Your task to perform on an android device: Open Chrome and go to the settings page Image 0: 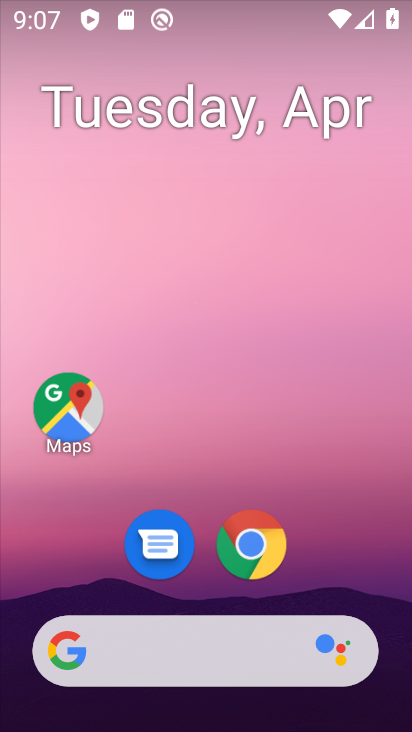
Step 0: drag from (377, 501) to (345, 68)
Your task to perform on an android device: Open Chrome and go to the settings page Image 1: 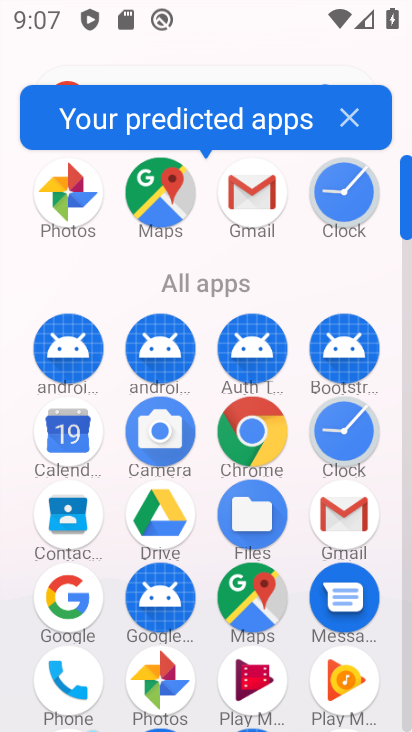
Step 1: click (266, 435)
Your task to perform on an android device: Open Chrome and go to the settings page Image 2: 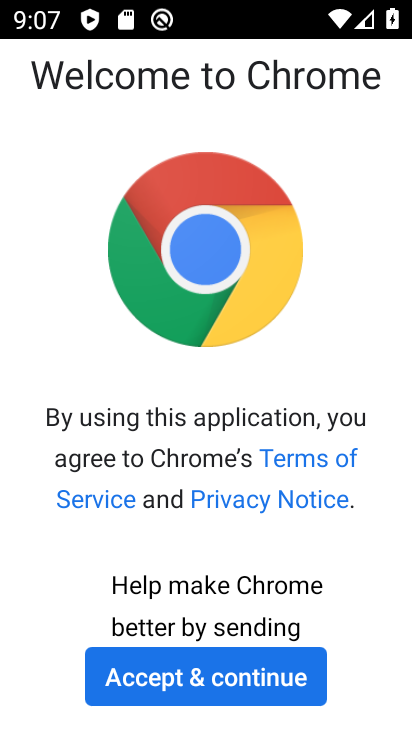
Step 2: click (248, 686)
Your task to perform on an android device: Open Chrome and go to the settings page Image 3: 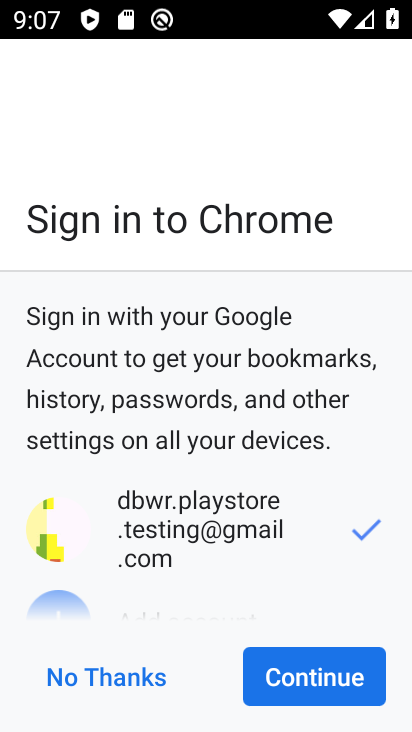
Step 3: click (347, 677)
Your task to perform on an android device: Open Chrome and go to the settings page Image 4: 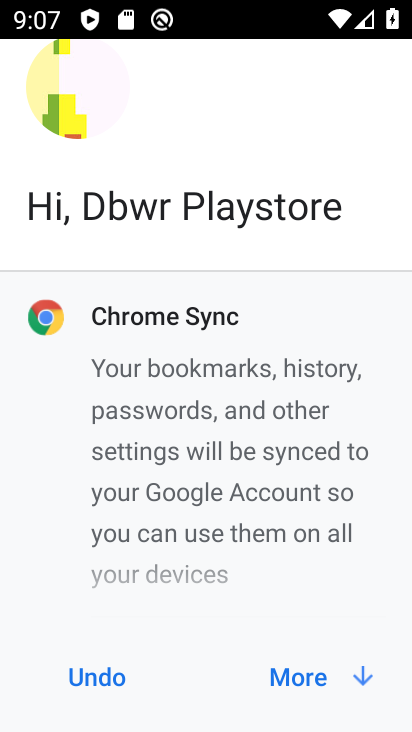
Step 4: click (326, 675)
Your task to perform on an android device: Open Chrome and go to the settings page Image 5: 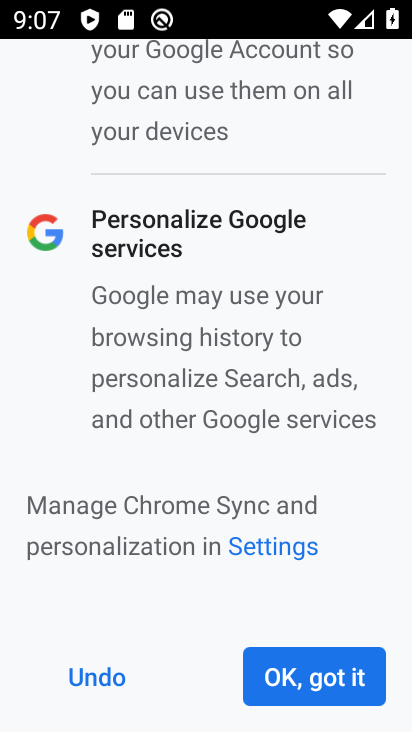
Step 5: click (335, 668)
Your task to perform on an android device: Open Chrome and go to the settings page Image 6: 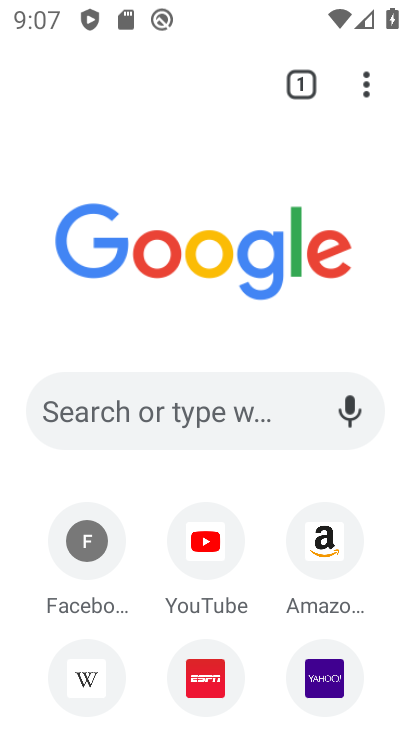
Step 6: click (368, 92)
Your task to perform on an android device: Open Chrome and go to the settings page Image 7: 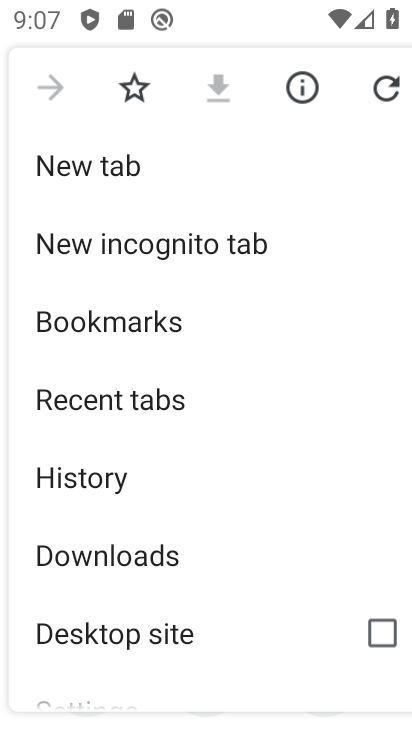
Step 7: drag from (290, 533) to (347, 238)
Your task to perform on an android device: Open Chrome and go to the settings page Image 8: 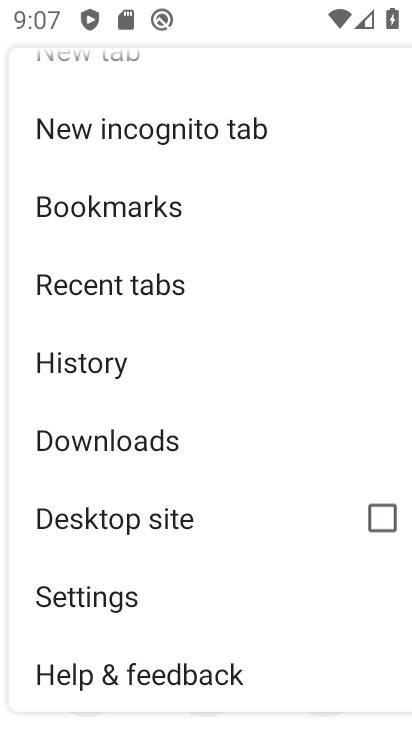
Step 8: click (95, 601)
Your task to perform on an android device: Open Chrome and go to the settings page Image 9: 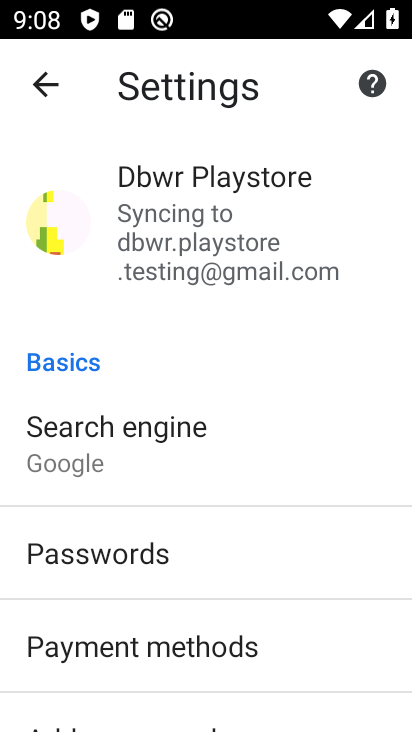
Step 9: task complete